Your task to perform on an android device: Search for Mexican restaurants on Maps Image 0: 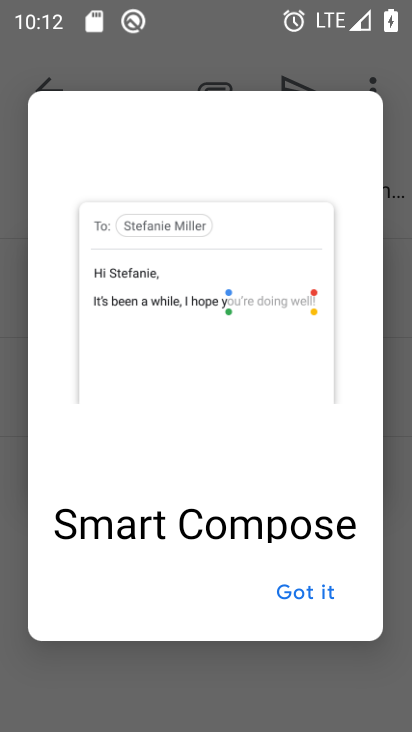
Step 0: press home button
Your task to perform on an android device: Search for Mexican restaurants on Maps Image 1: 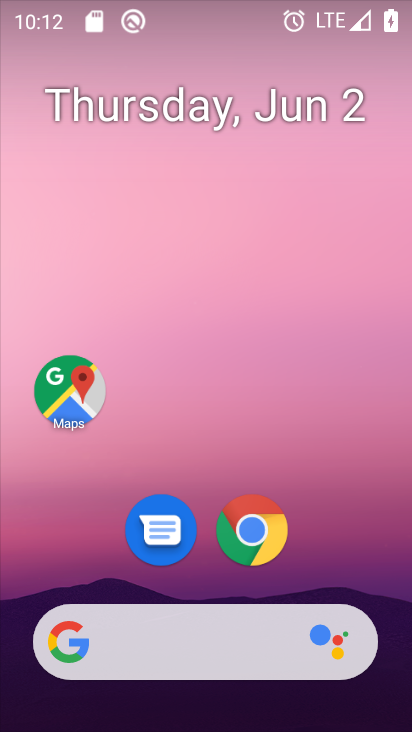
Step 1: drag from (228, 548) to (229, 382)
Your task to perform on an android device: Search for Mexican restaurants on Maps Image 2: 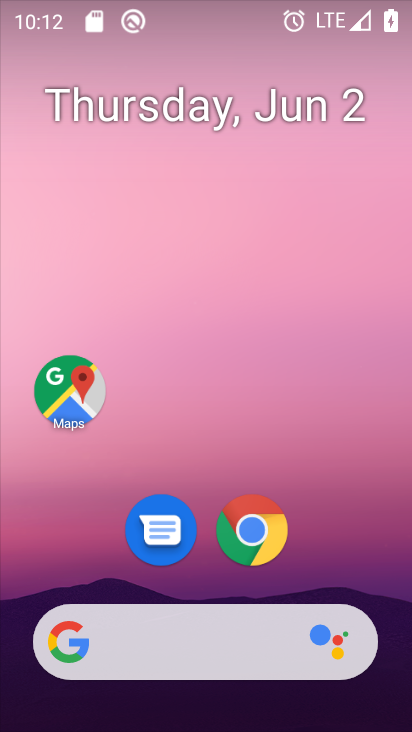
Step 2: drag from (121, 608) to (195, 78)
Your task to perform on an android device: Search for Mexican restaurants on Maps Image 3: 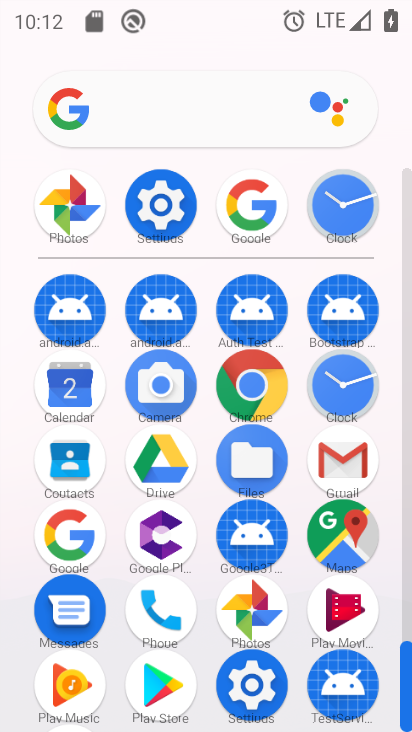
Step 3: click (328, 535)
Your task to perform on an android device: Search for Mexican restaurants on Maps Image 4: 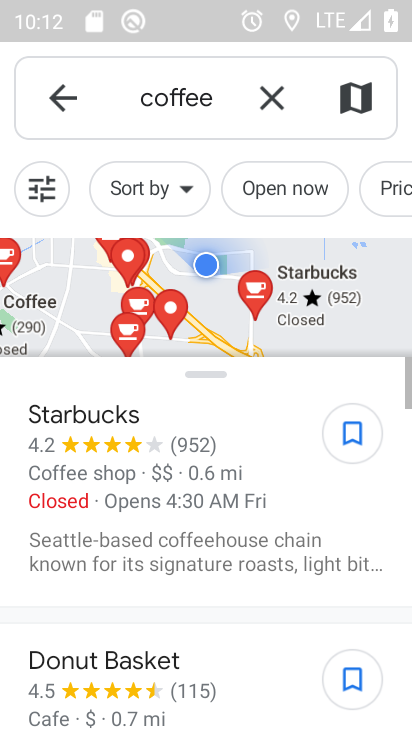
Step 4: click (273, 105)
Your task to perform on an android device: Search for Mexican restaurants on Maps Image 5: 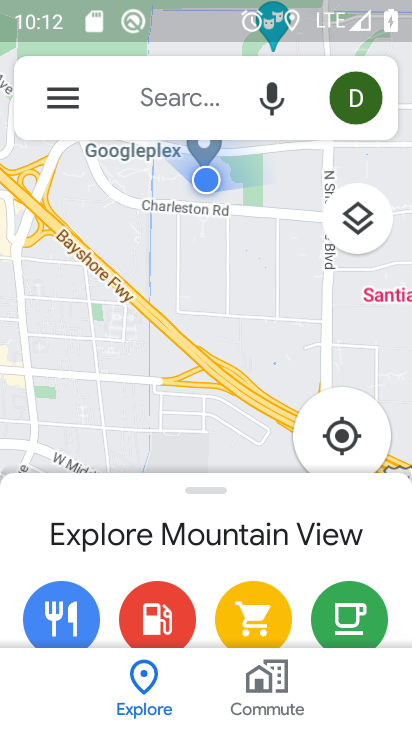
Step 5: click (183, 96)
Your task to perform on an android device: Search for Mexican restaurants on Maps Image 6: 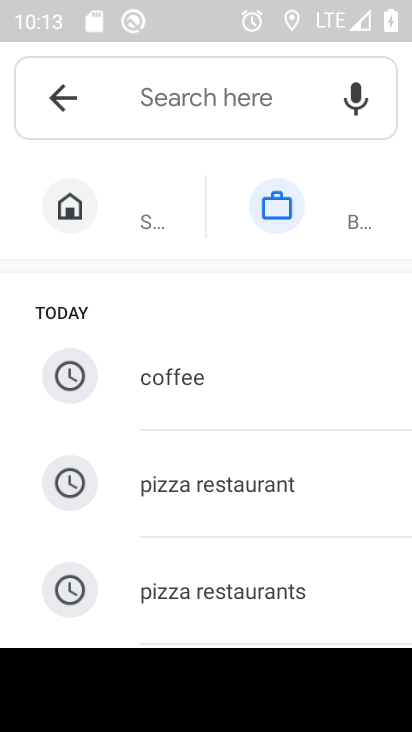
Step 6: drag from (163, 620) to (209, 301)
Your task to perform on an android device: Search for Mexican restaurants on Maps Image 7: 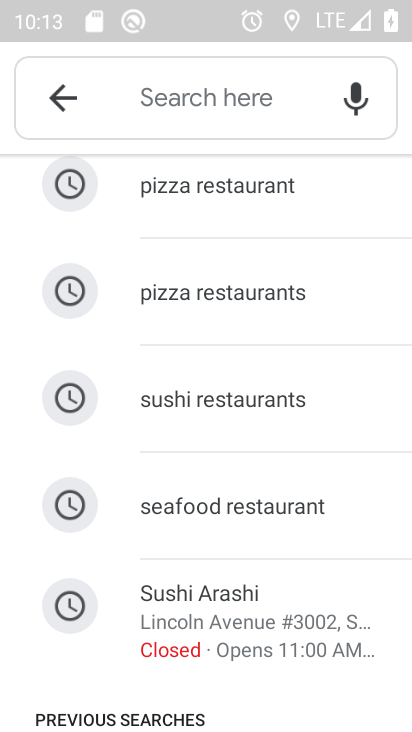
Step 7: drag from (187, 667) to (213, 328)
Your task to perform on an android device: Search for Mexican restaurants on Maps Image 8: 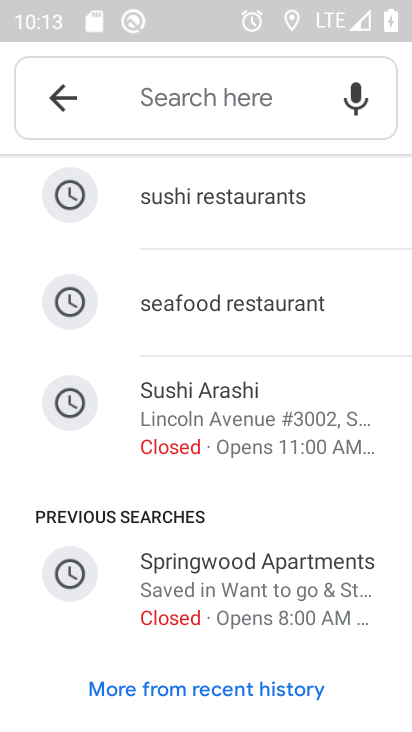
Step 8: drag from (194, 672) to (217, 392)
Your task to perform on an android device: Search for Mexican restaurants on Maps Image 9: 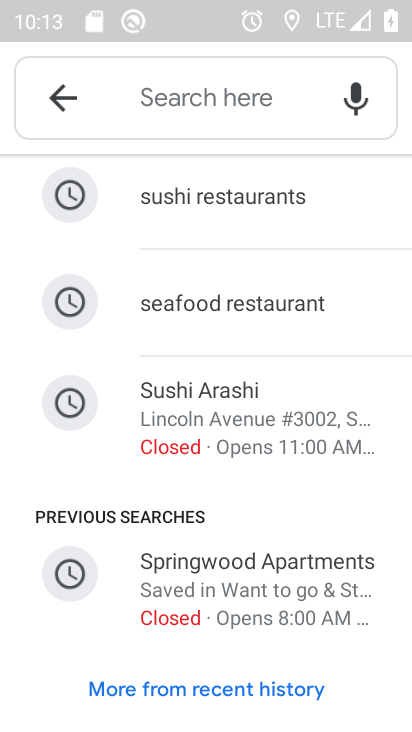
Step 9: drag from (279, 221) to (244, 623)
Your task to perform on an android device: Search for Mexican restaurants on Maps Image 10: 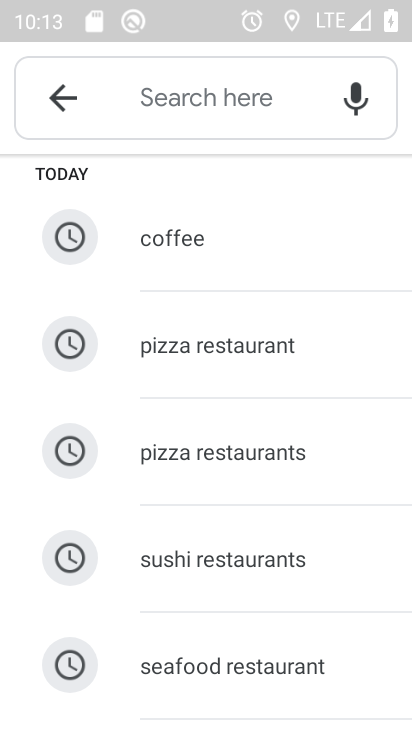
Step 10: drag from (254, 191) to (252, 530)
Your task to perform on an android device: Search for Mexican restaurants on Maps Image 11: 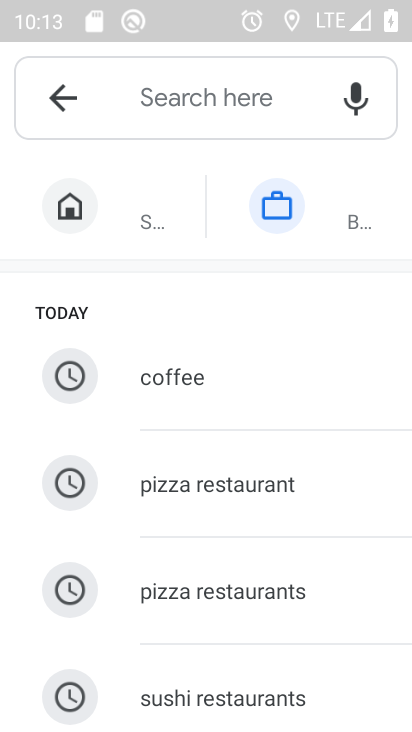
Step 11: click (65, 101)
Your task to perform on an android device: Search for Mexican restaurants on Maps Image 12: 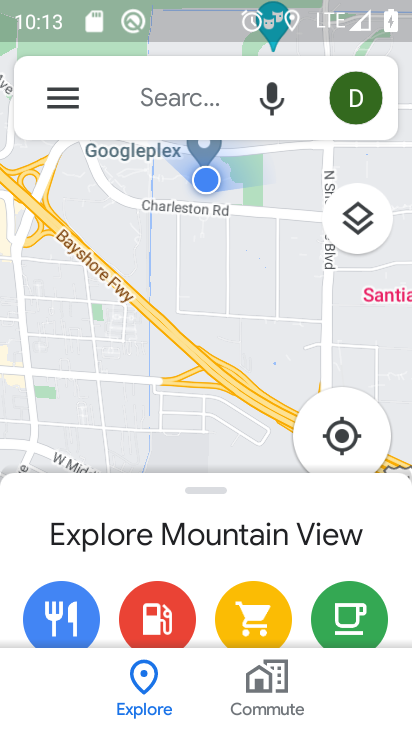
Step 12: click (178, 96)
Your task to perform on an android device: Search for Mexican restaurants on Maps Image 13: 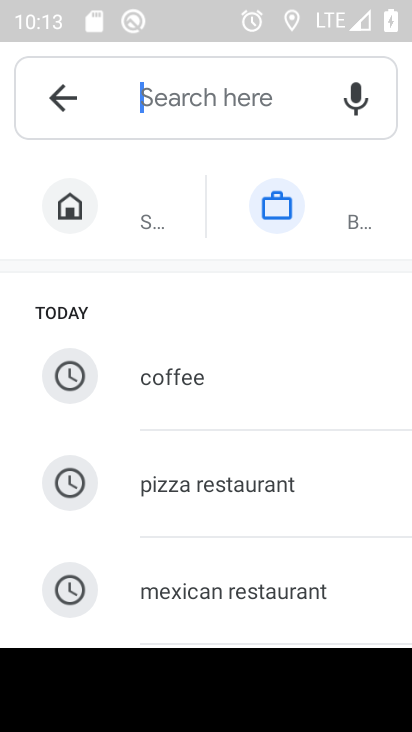
Step 13: type "mexican restaurants"
Your task to perform on an android device: Search for Mexican restaurants on Maps Image 14: 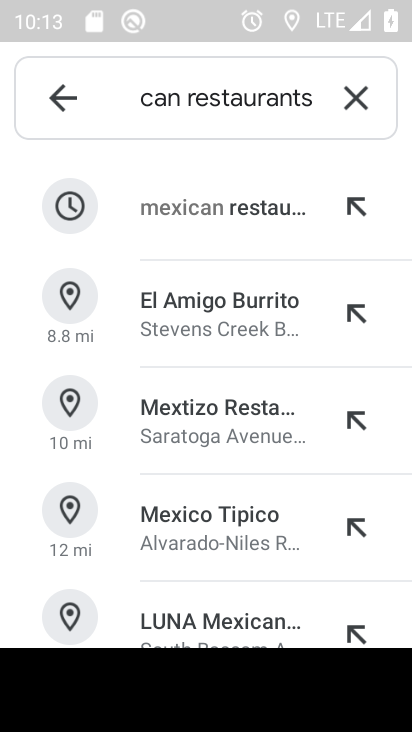
Step 14: click (226, 210)
Your task to perform on an android device: Search for Mexican restaurants on Maps Image 15: 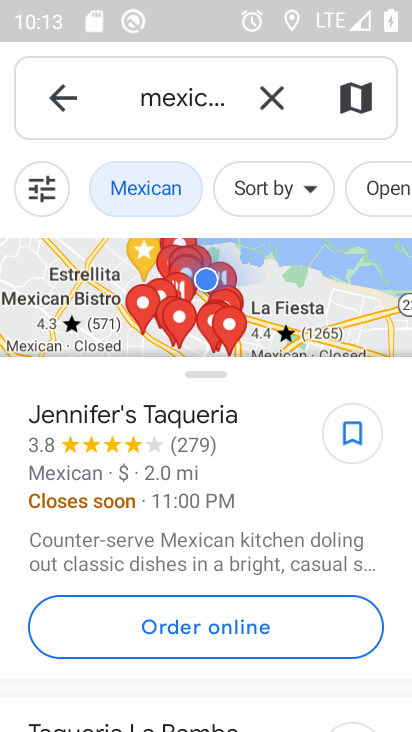
Step 15: task complete